Your task to perform on an android device: toggle priority inbox in the gmail app Image 0: 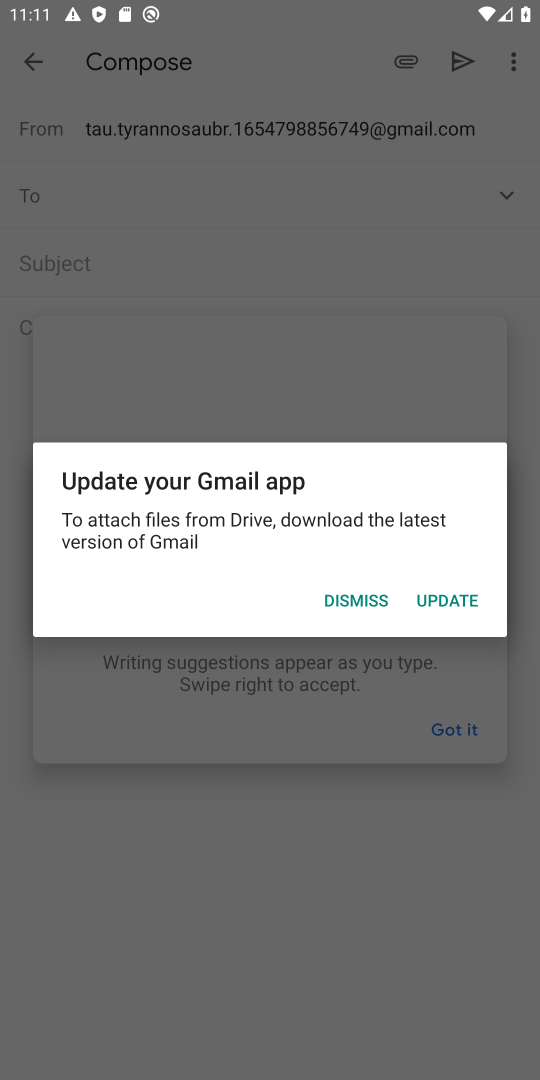
Step 0: press home button
Your task to perform on an android device: toggle priority inbox in the gmail app Image 1: 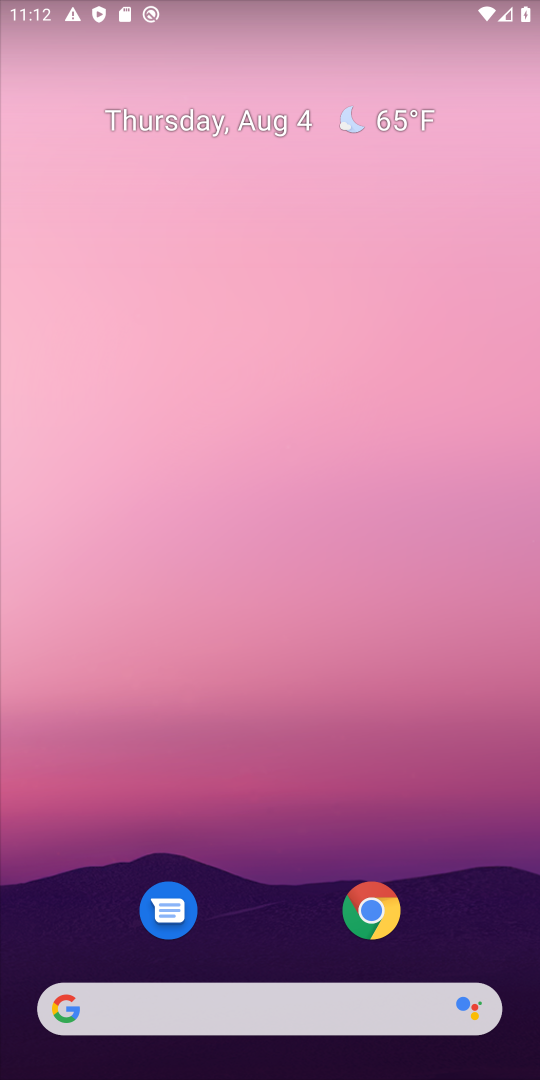
Step 1: drag from (235, 736) to (235, 186)
Your task to perform on an android device: toggle priority inbox in the gmail app Image 2: 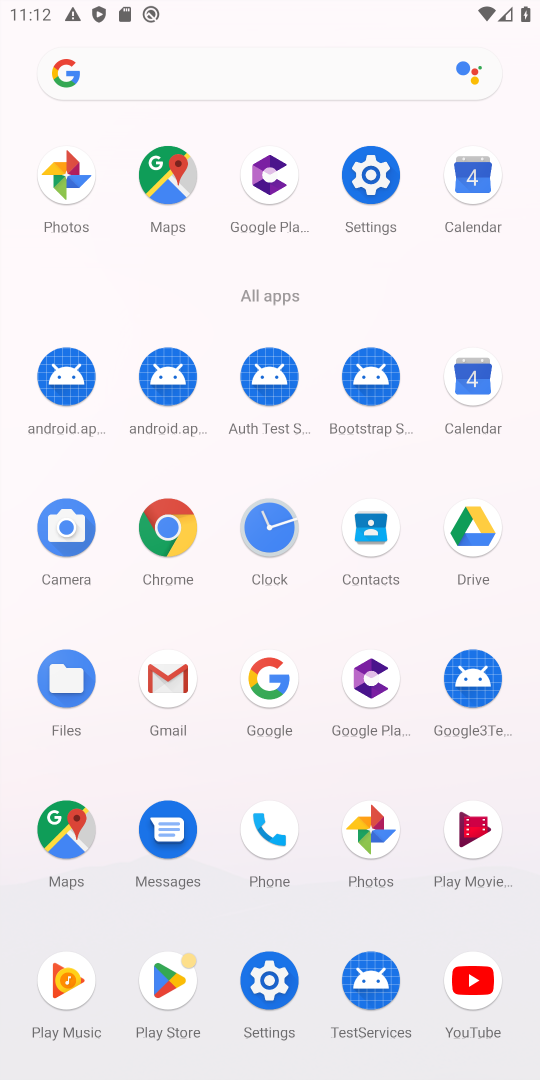
Step 2: click (170, 681)
Your task to perform on an android device: toggle priority inbox in the gmail app Image 3: 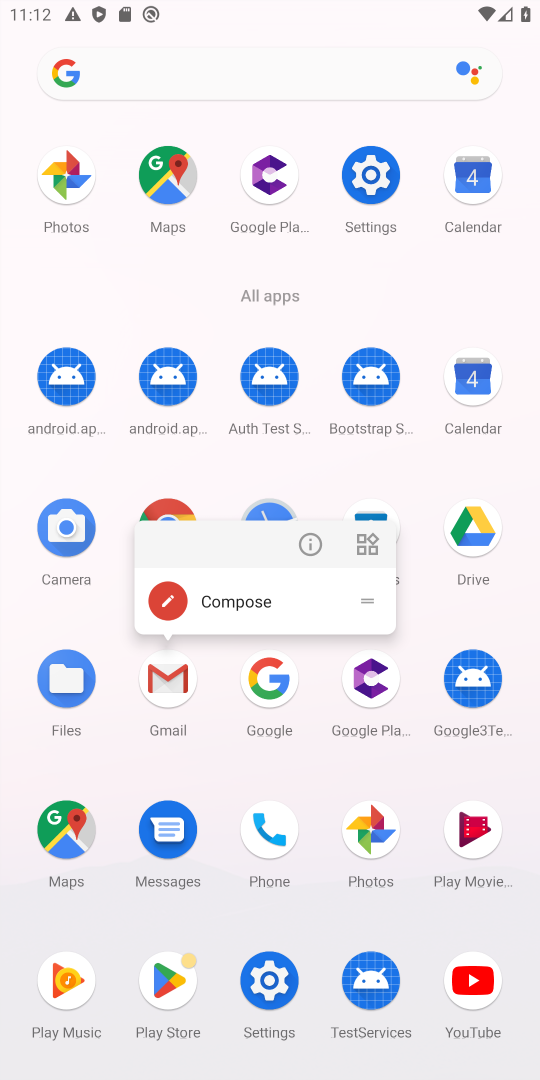
Step 3: click (170, 681)
Your task to perform on an android device: toggle priority inbox in the gmail app Image 4: 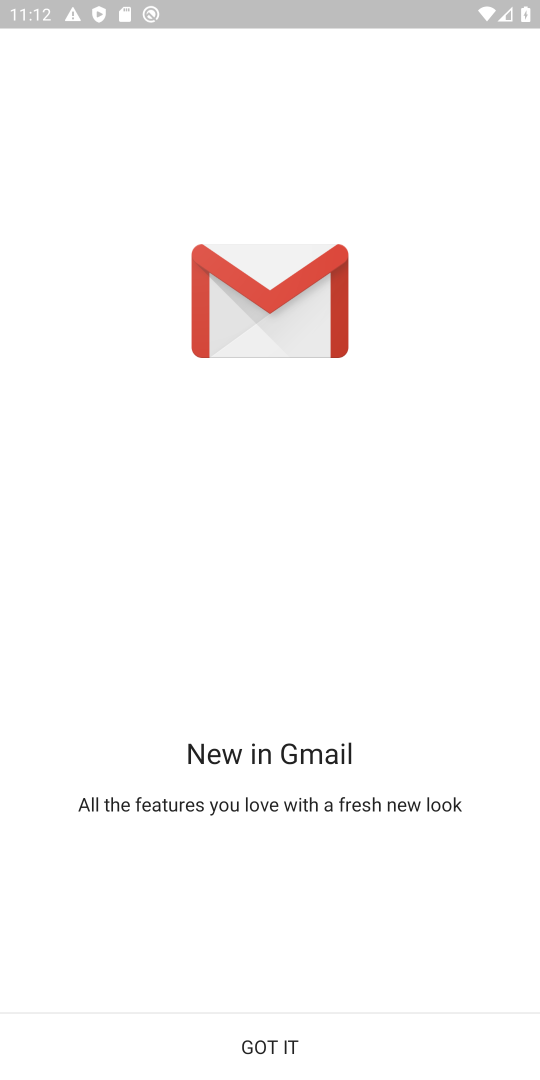
Step 4: click (270, 1053)
Your task to perform on an android device: toggle priority inbox in the gmail app Image 5: 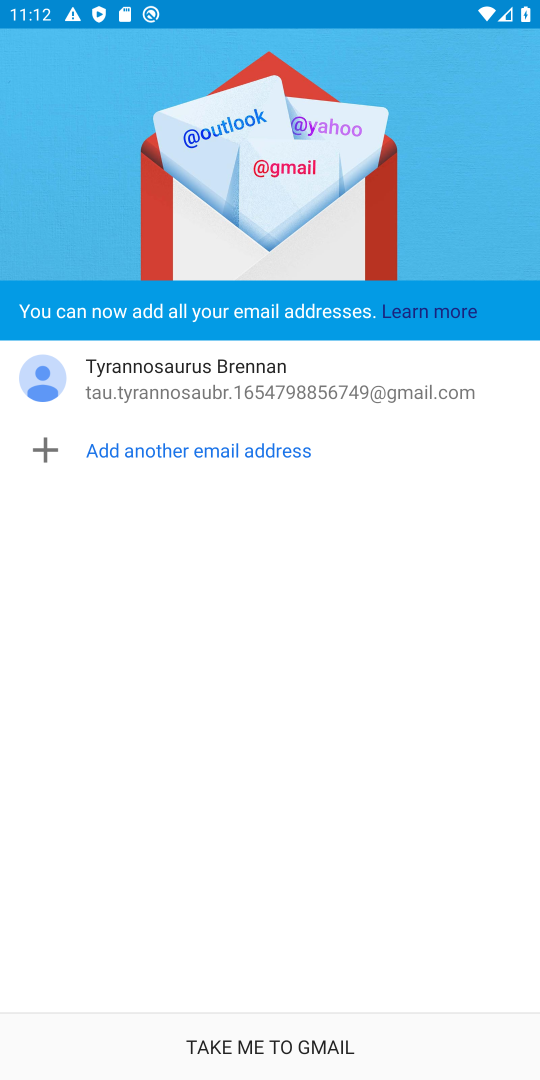
Step 5: click (320, 1047)
Your task to perform on an android device: toggle priority inbox in the gmail app Image 6: 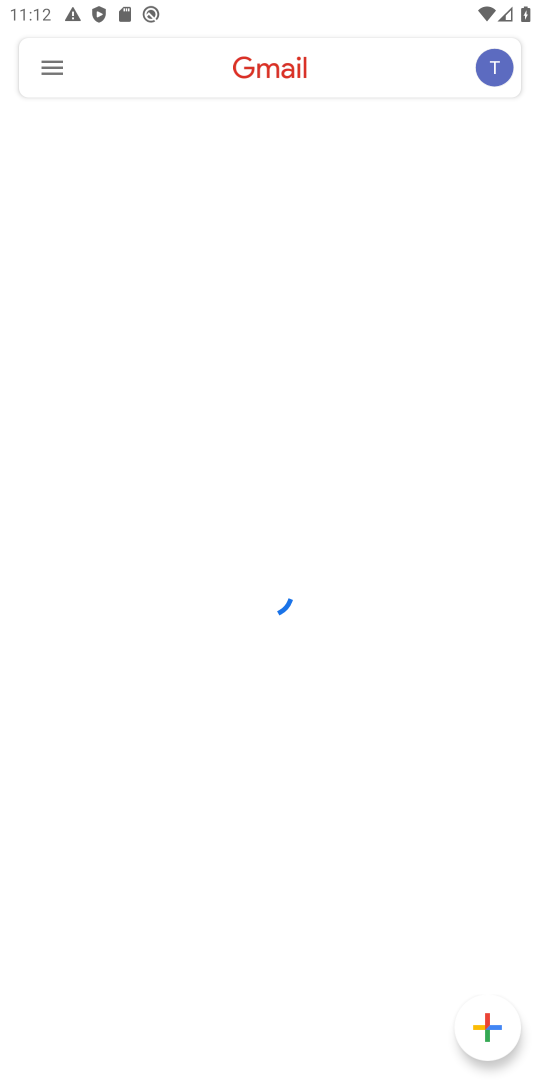
Step 6: click (38, 72)
Your task to perform on an android device: toggle priority inbox in the gmail app Image 7: 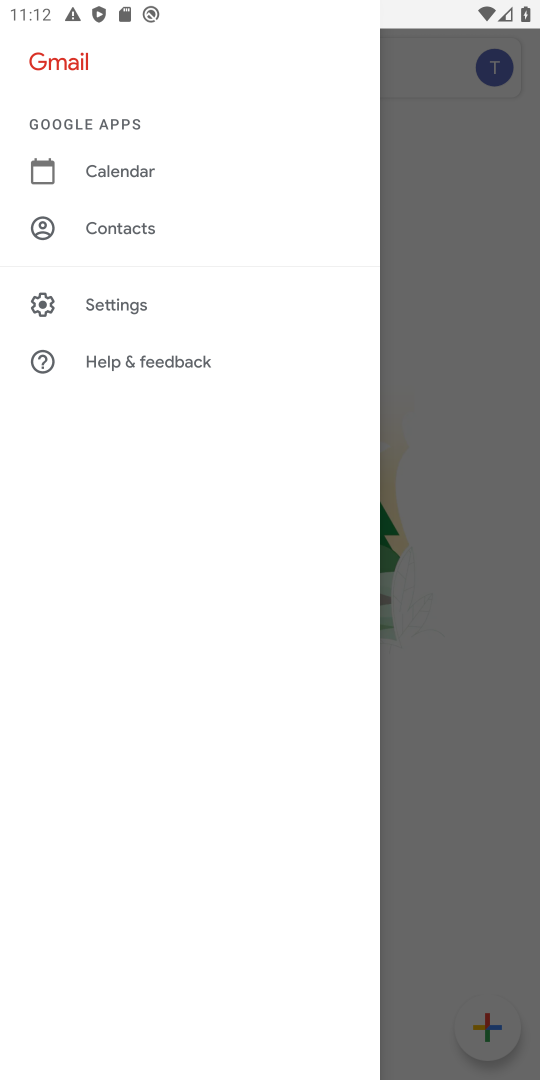
Step 7: click (128, 308)
Your task to perform on an android device: toggle priority inbox in the gmail app Image 8: 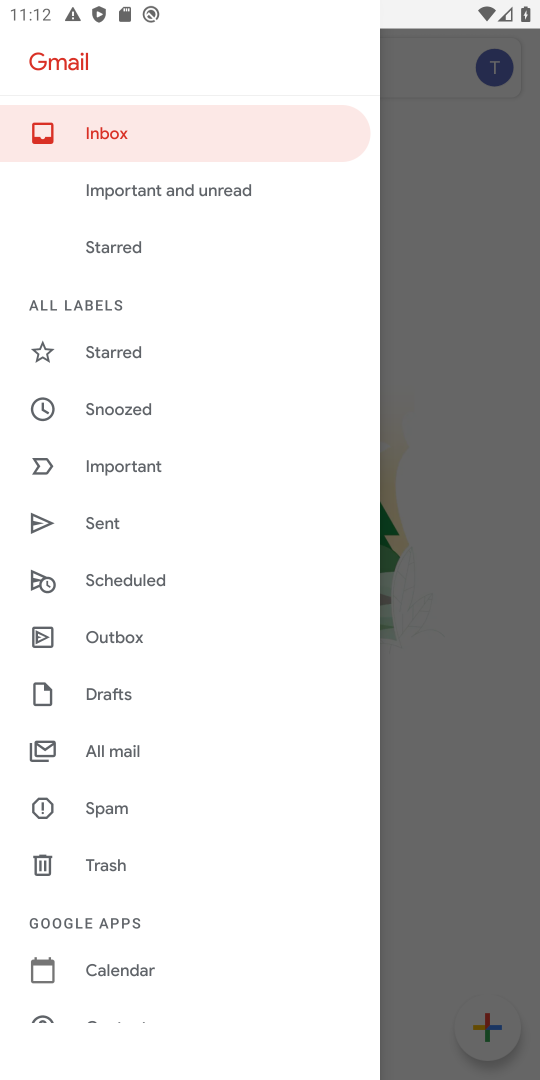
Step 8: drag from (144, 969) to (168, 526)
Your task to perform on an android device: toggle priority inbox in the gmail app Image 9: 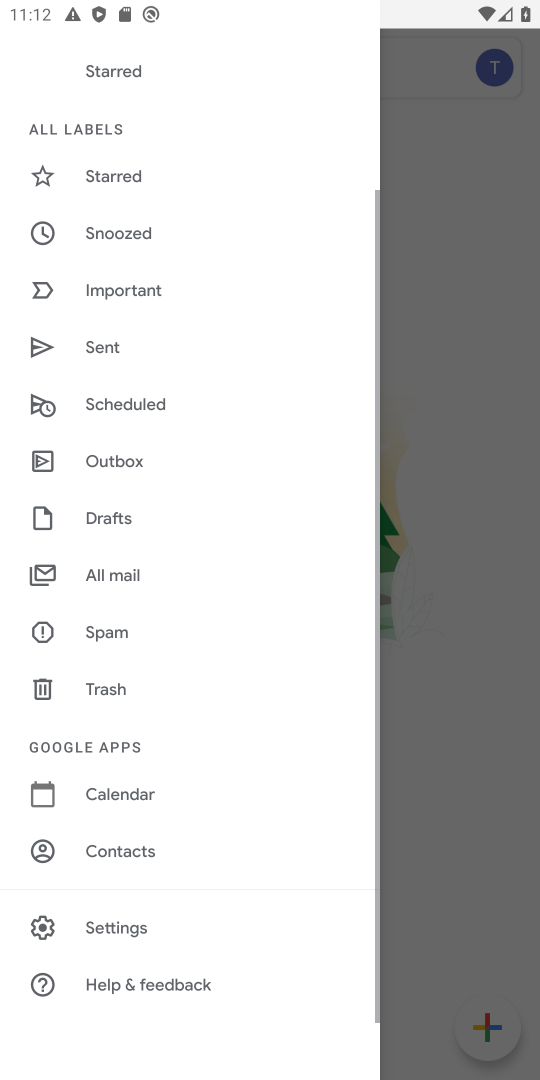
Step 9: click (111, 935)
Your task to perform on an android device: toggle priority inbox in the gmail app Image 10: 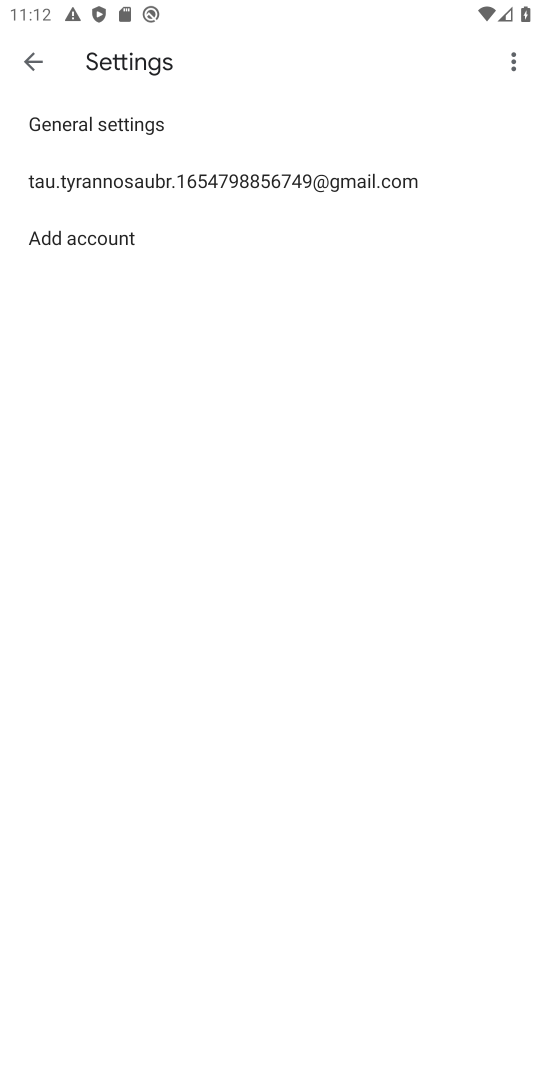
Step 10: click (164, 174)
Your task to perform on an android device: toggle priority inbox in the gmail app Image 11: 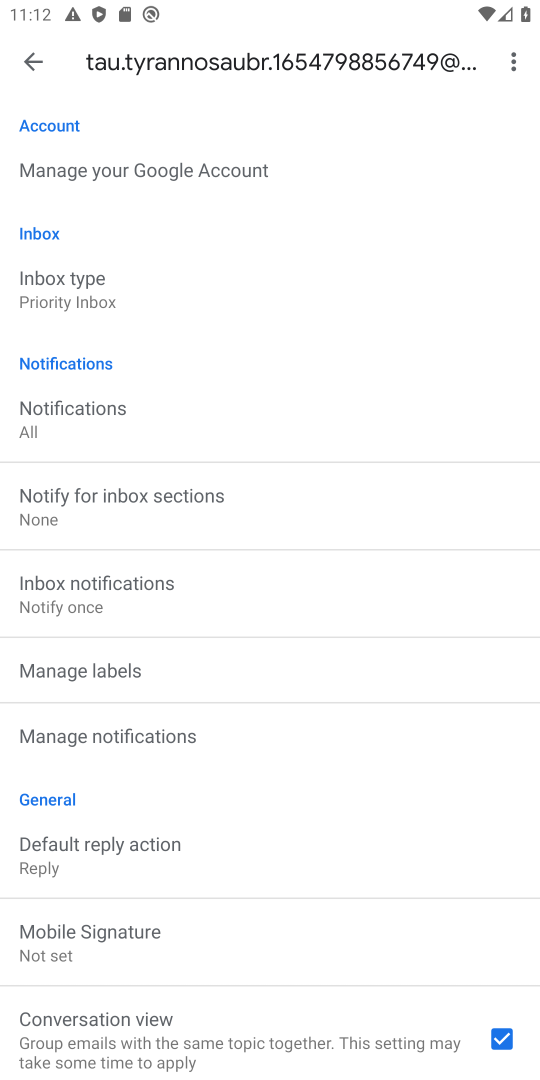
Step 11: click (96, 297)
Your task to perform on an android device: toggle priority inbox in the gmail app Image 12: 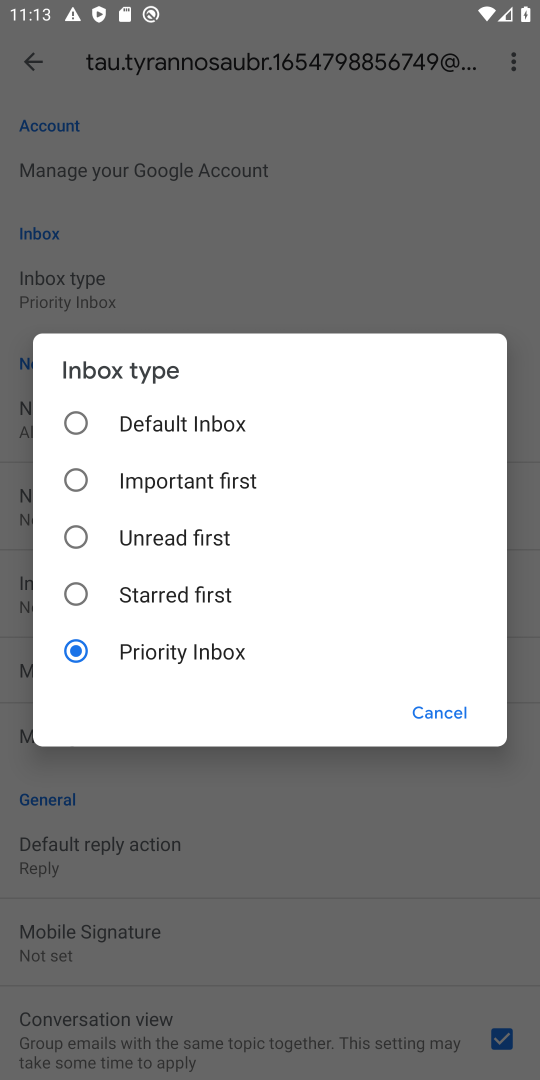
Step 12: click (200, 597)
Your task to perform on an android device: toggle priority inbox in the gmail app Image 13: 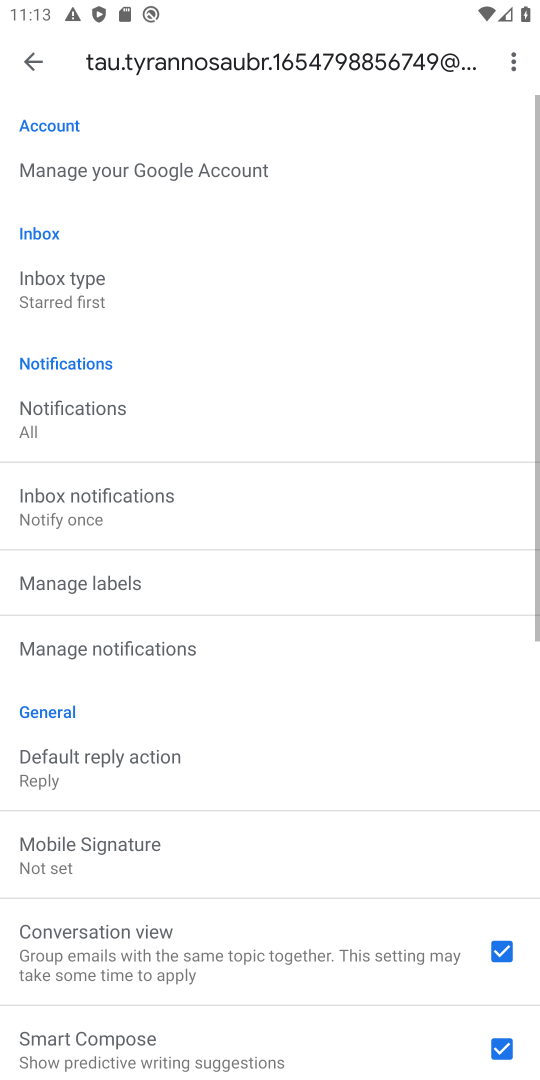
Step 13: task complete